Your task to perform on an android device: Clear all items from cart on amazon. Image 0: 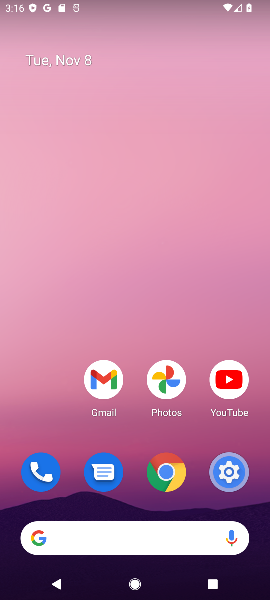
Step 0: click (108, 550)
Your task to perform on an android device: Clear all items from cart on amazon. Image 1: 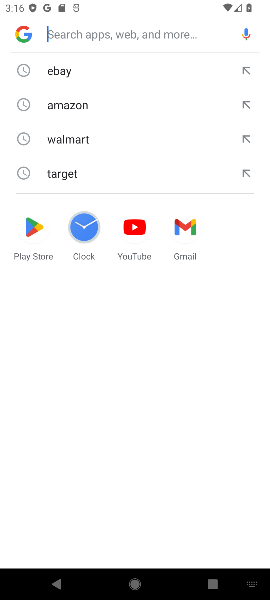
Step 1: click (84, 115)
Your task to perform on an android device: Clear all items from cart on amazon. Image 2: 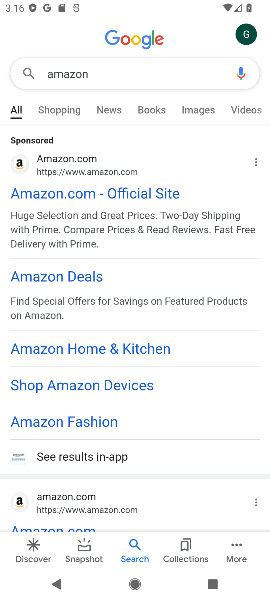
Step 2: click (64, 186)
Your task to perform on an android device: Clear all items from cart on amazon. Image 3: 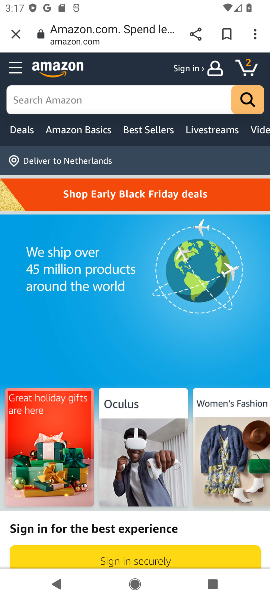
Step 3: click (64, 186)
Your task to perform on an android device: Clear all items from cart on amazon. Image 4: 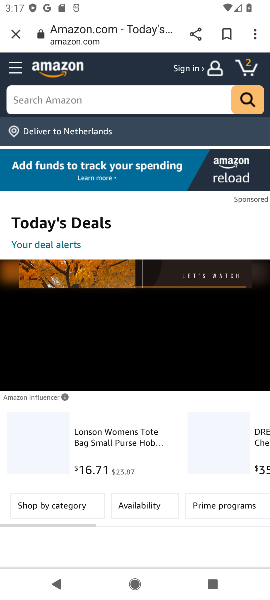
Step 4: click (241, 76)
Your task to perform on an android device: Clear all items from cart on amazon. Image 5: 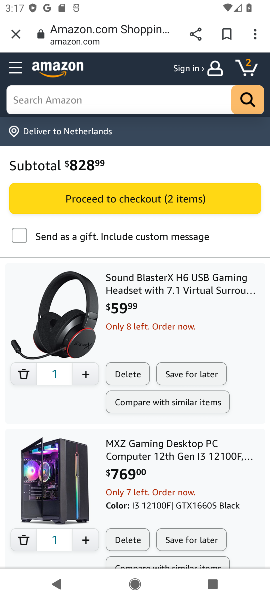
Step 5: click (249, 67)
Your task to perform on an android device: Clear all items from cart on amazon. Image 6: 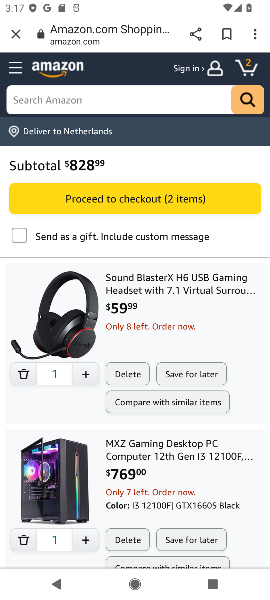
Step 6: click (19, 374)
Your task to perform on an android device: Clear all items from cart on amazon. Image 7: 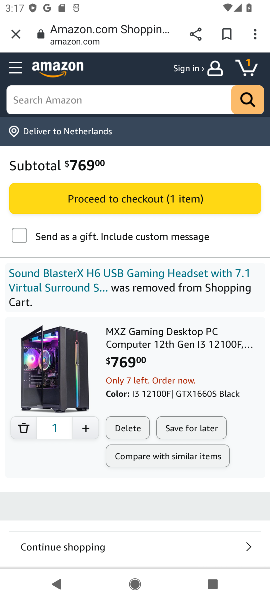
Step 7: click (27, 429)
Your task to perform on an android device: Clear all items from cart on amazon. Image 8: 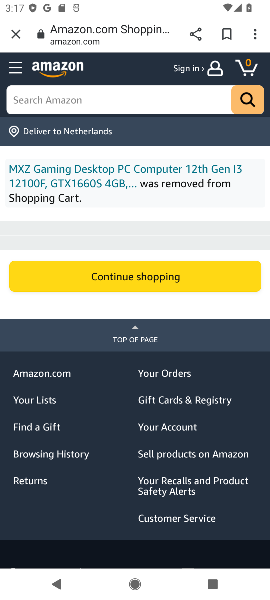
Step 8: task complete